Your task to perform on an android device: uninstall "Adobe Acrobat Reader" Image 0: 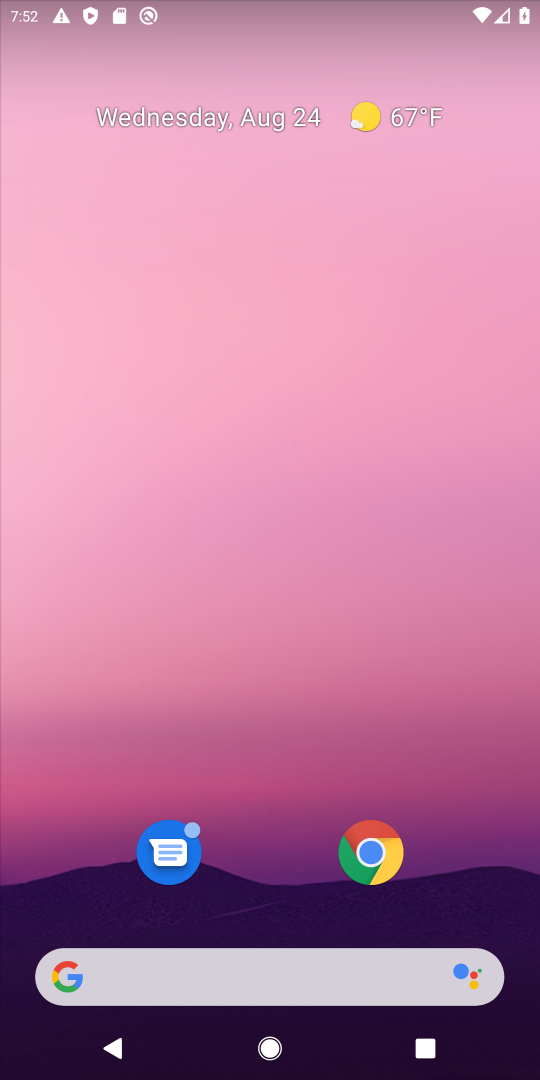
Step 0: drag from (296, 893) to (258, 108)
Your task to perform on an android device: uninstall "Adobe Acrobat Reader" Image 1: 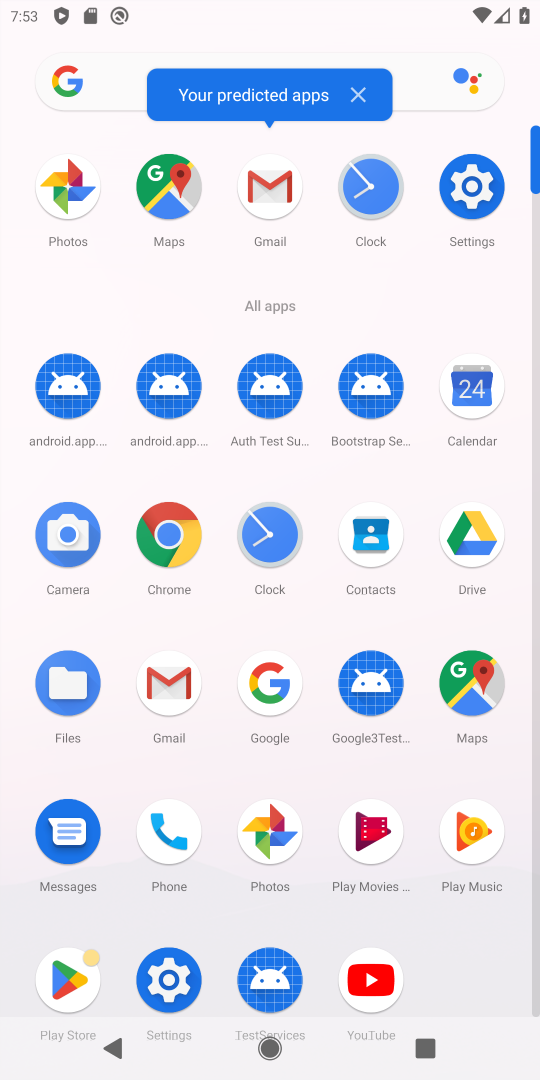
Step 1: click (72, 977)
Your task to perform on an android device: uninstall "Adobe Acrobat Reader" Image 2: 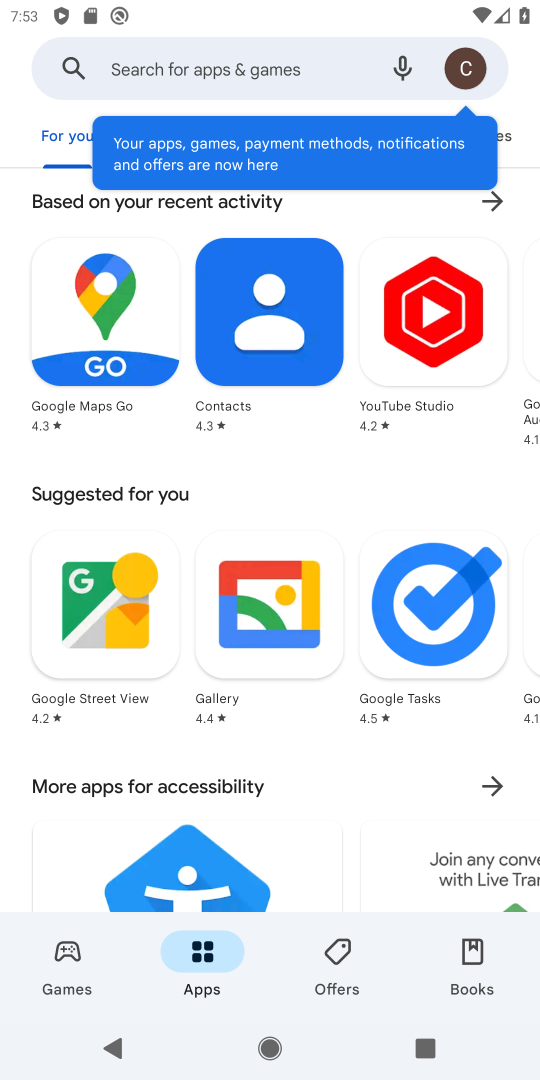
Step 2: click (270, 74)
Your task to perform on an android device: uninstall "Adobe Acrobat Reader" Image 3: 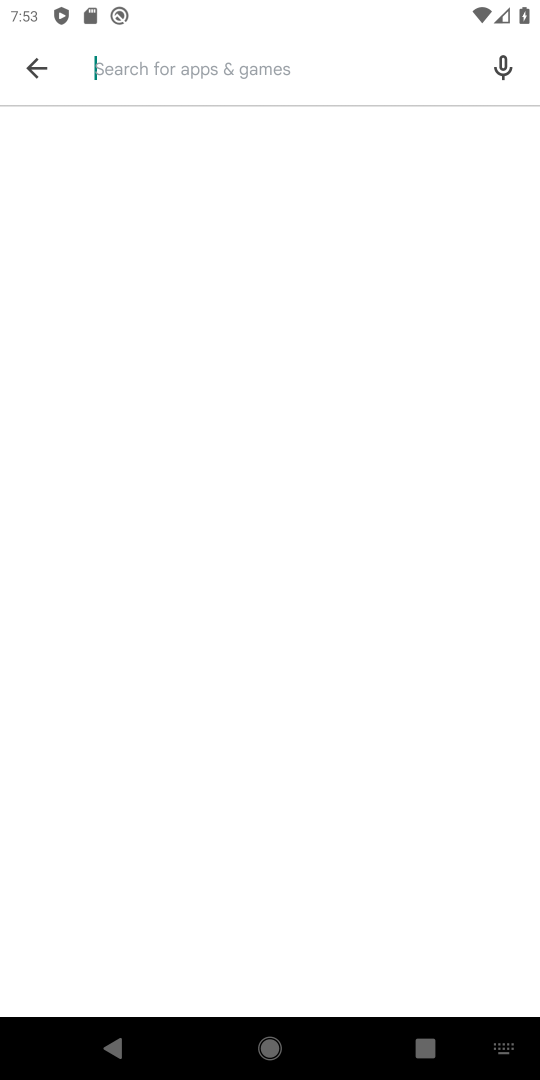
Step 3: type "Adobe Acrobat Reader"
Your task to perform on an android device: uninstall "Adobe Acrobat Reader" Image 4: 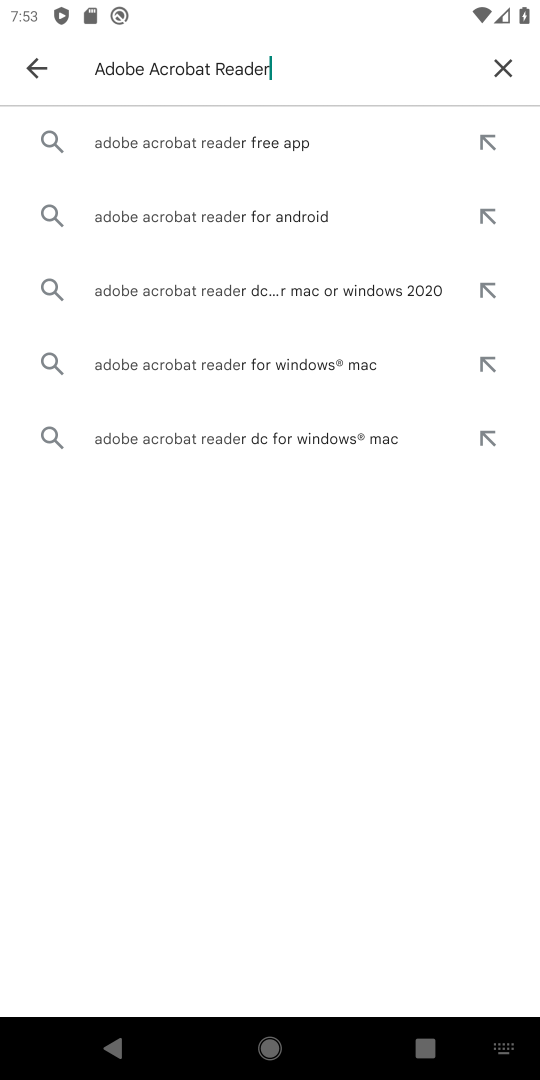
Step 4: type ""
Your task to perform on an android device: uninstall "Adobe Acrobat Reader" Image 5: 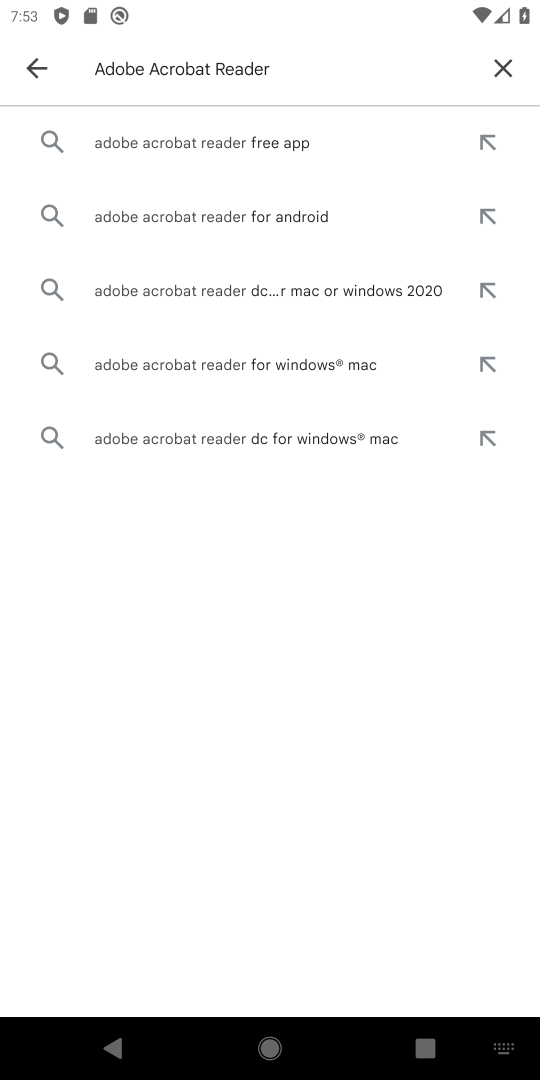
Step 5: click (201, 158)
Your task to perform on an android device: uninstall "Adobe Acrobat Reader" Image 6: 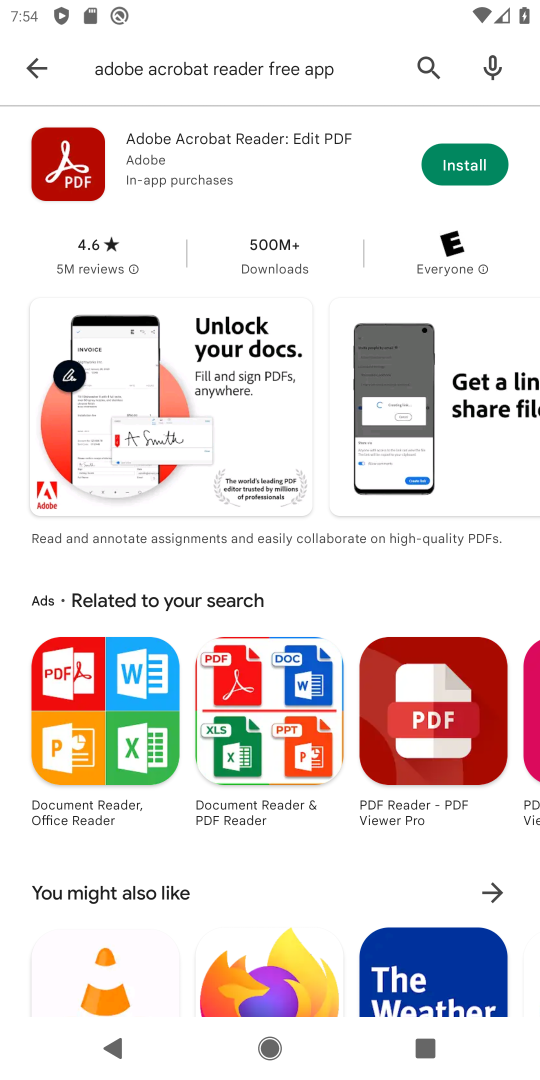
Step 6: task complete